Your task to perform on an android device: Go to Google maps Image 0: 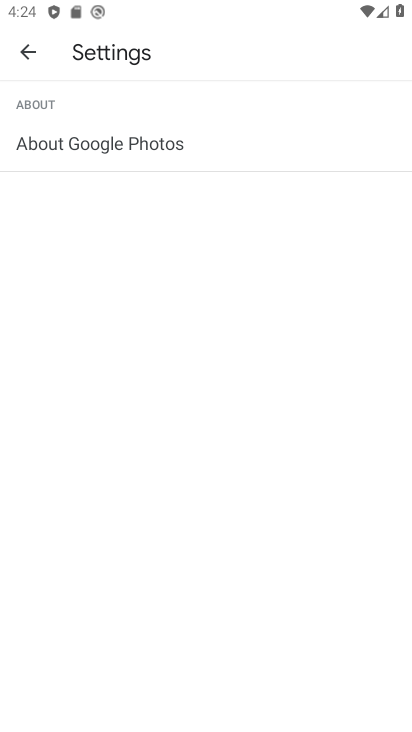
Step 0: press home button
Your task to perform on an android device: Go to Google maps Image 1: 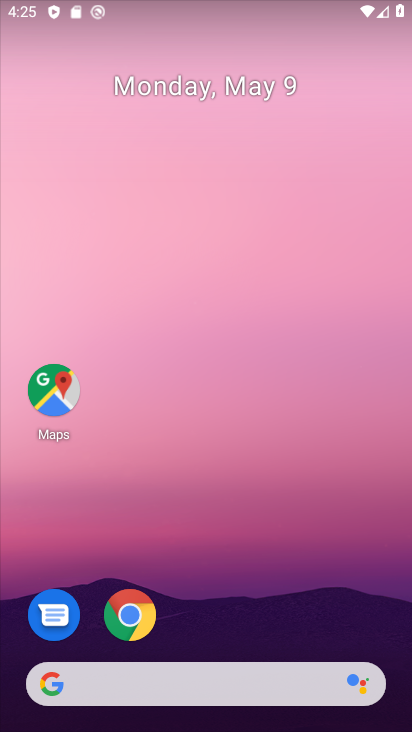
Step 1: drag from (202, 627) to (281, 176)
Your task to perform on an android device: Go to Google maps Image 2: 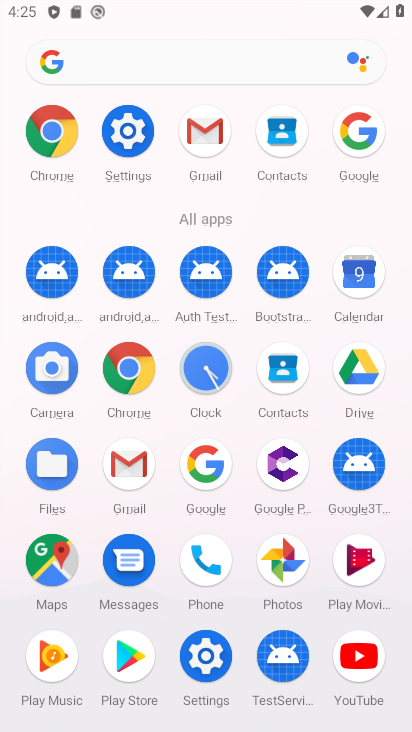
Step 2: click (204, 461)
Your task to perform on an android device: Go to Google maps Image 3: 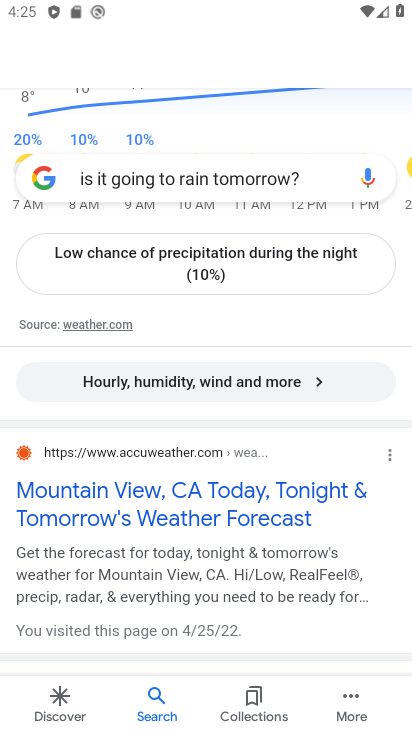
Step 3: press home button
Your task to perform on an android device: Go to Google maps Image 4: 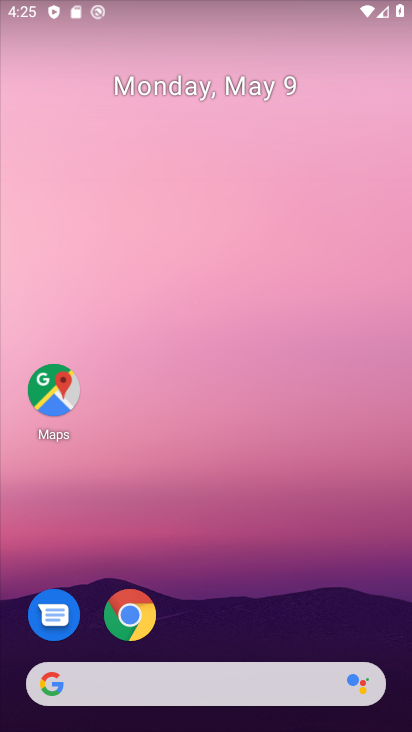
Step 4: click (49, 391)
Your task to perform on an android device: Go to Google maps Image 5: 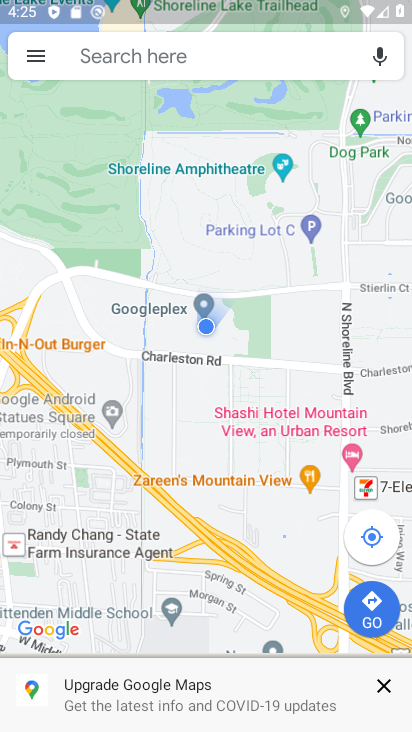
Step 5: task complete